Your task to perform on an android device: change the clock display to digital Image 0: 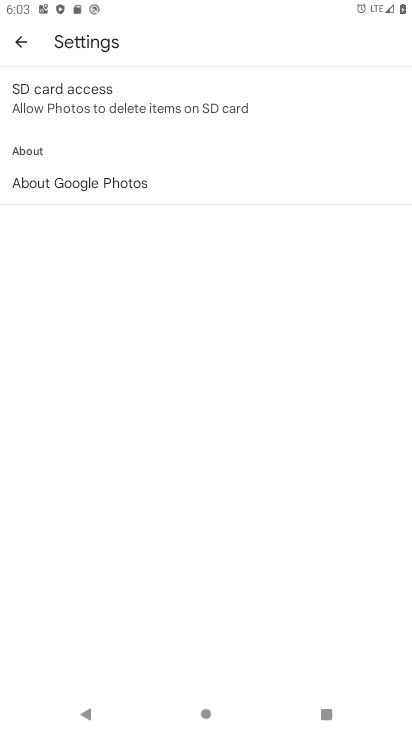
Step 0: press home button
Your task to perform on an android device: change the clock display to digital Image 1: 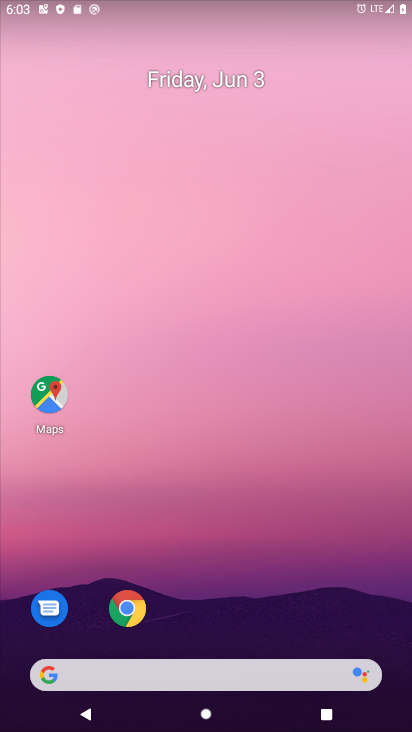
Step 1: drag from (331, 522) to (366, 114)
Your task to perform on an android device: change the clock display to digital Image 2: 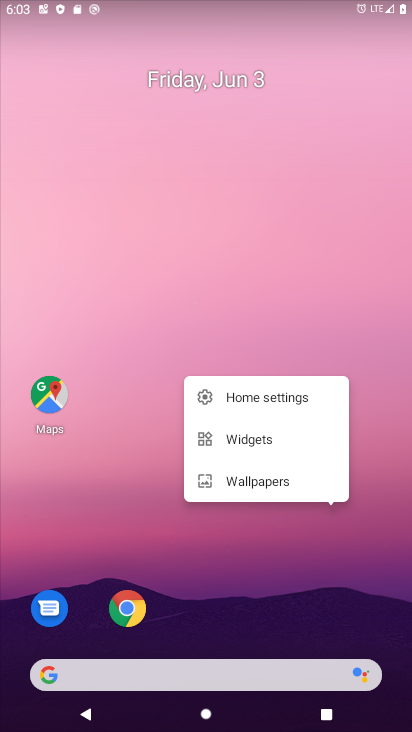
Step 2: click (366, 114)
Your task to perform on an android device: change the clock display to digital Image 3: 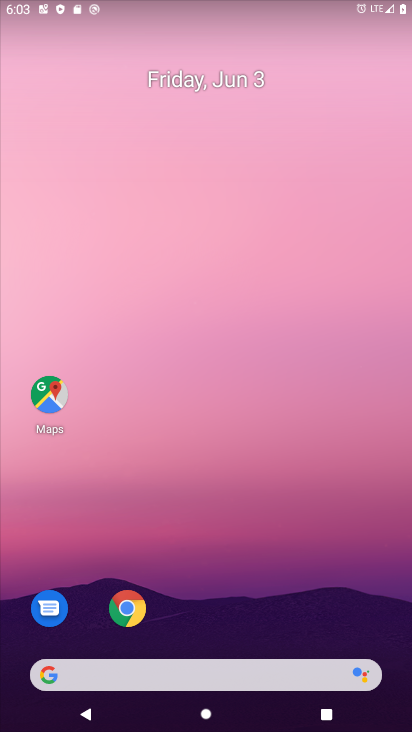
Step 3: drag from (275, 529) to (306, 237)
Your task to perform on an android device: change the clock display to digital Image 4: 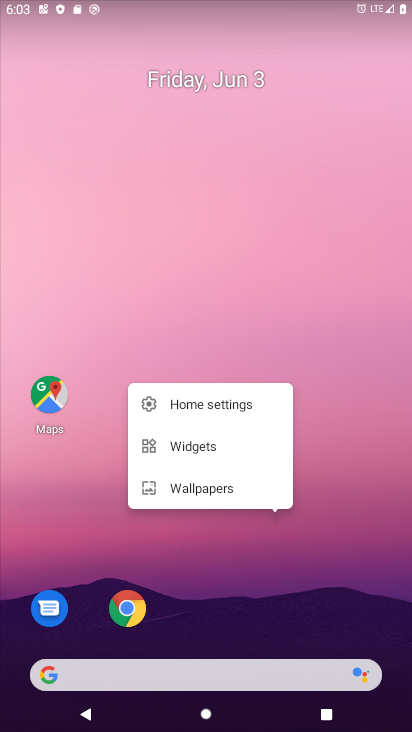
Step 4: click (307, 236)
Your task to perform on an android device: change the clock display to digital Image 5: 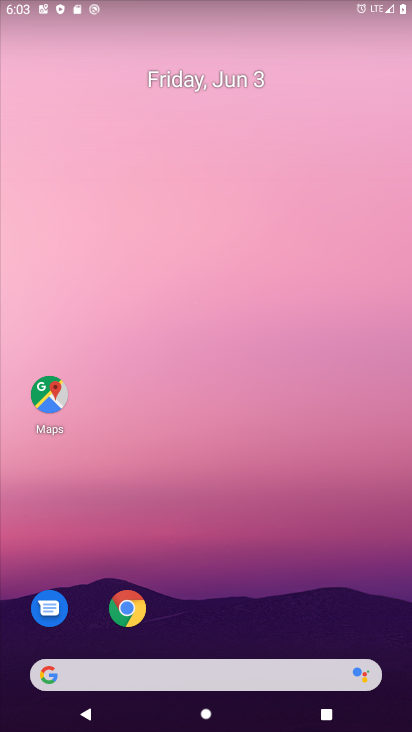
Step 5: click (307, 236)
Your task to perform on an android device: change the clock display to digital Image 6: 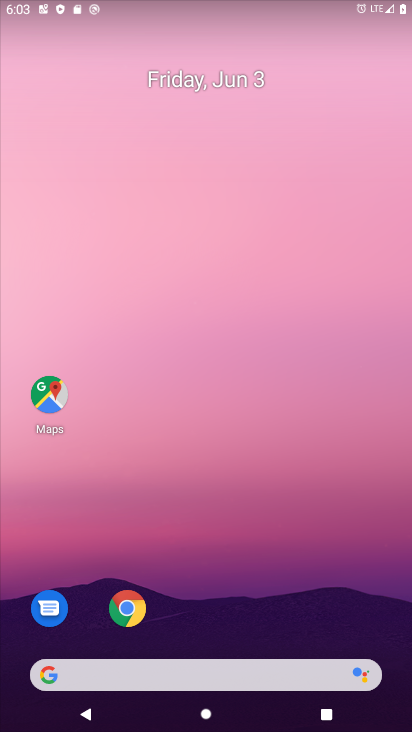
Step 6: drag from (240, 624) to (165, 168)
Your task to perform on an android device: change the clock display to digital Image 7: 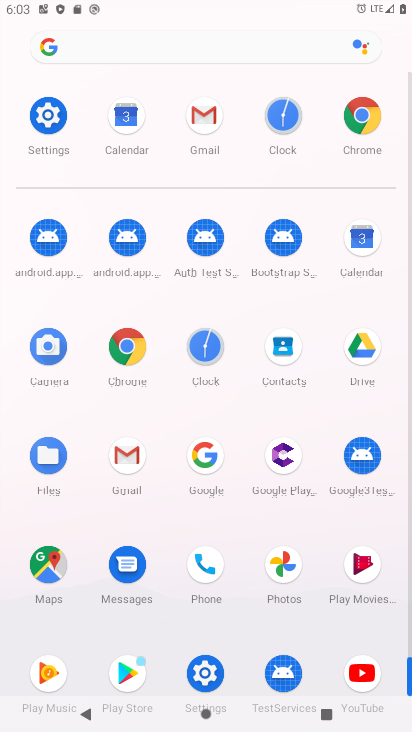
Step 7: click (290, 130)
Your task to perform on an android device: change the clock display to digital Image 8: 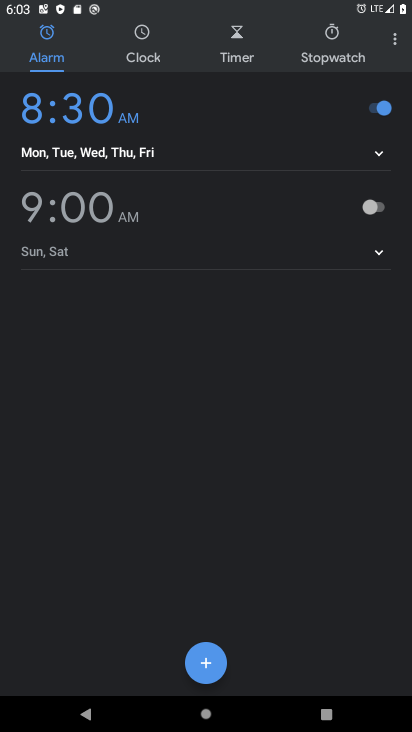
Step 8: click (391, 42)
Your task to perform on an android device: change the clock display to digital Image 9: 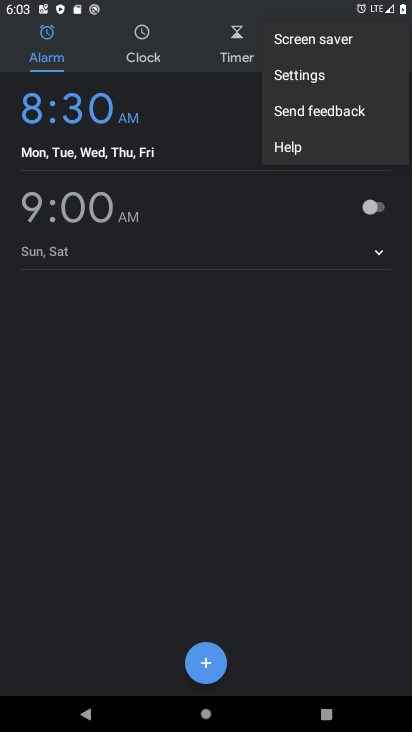
Step 9: click (309, 75)
Your task to perform on an android device: change the clock display to digital Image 10: 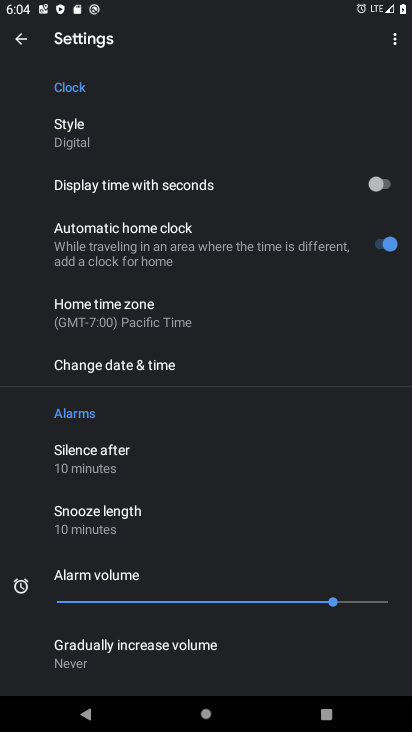
Step 10: task complete